Your task to perform on an android device: Clear the cart on ebay. Search for acer nitro on ebay, select the first entry, and add it to the cart. Image 0: 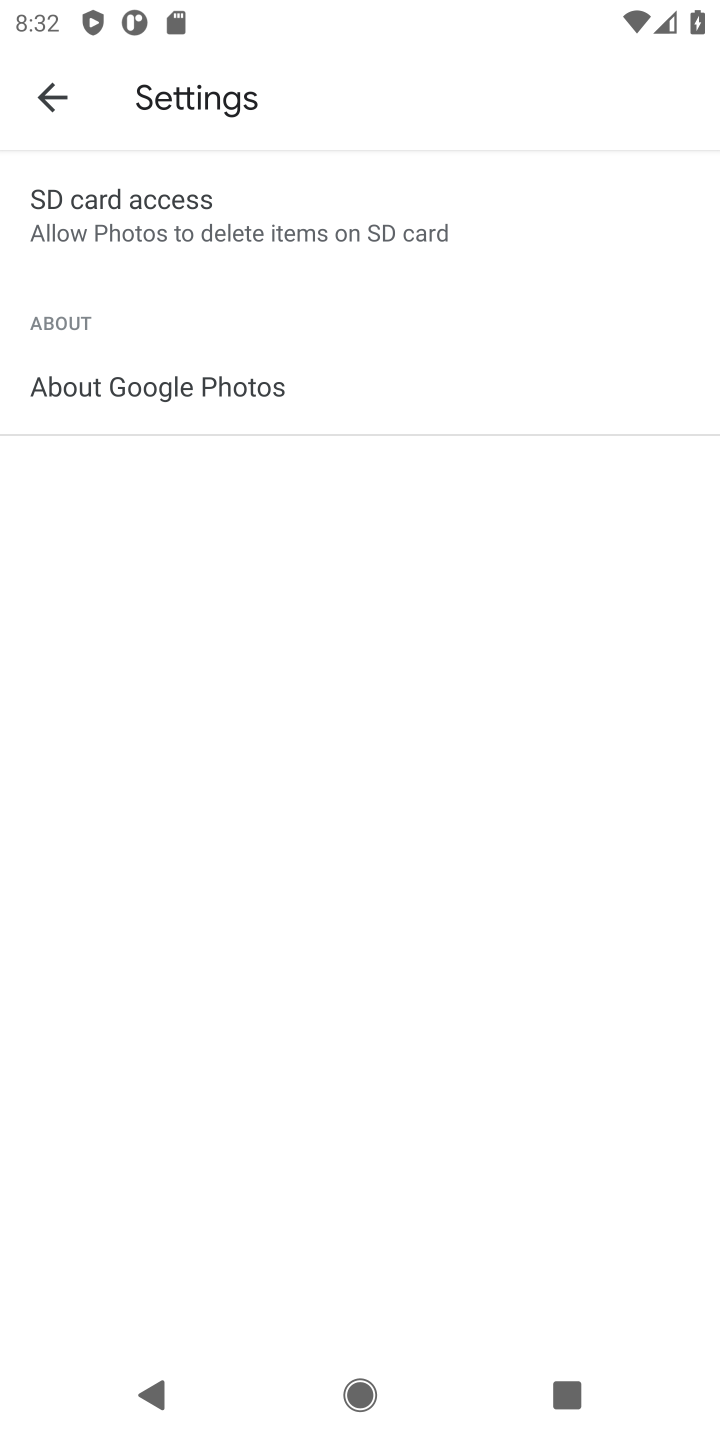
Step 0: press home button
Your task to perform on an android device: Clear the cart on ebay. Search for acer nitro on ebay, select the first entry, and add it to the cart. Image 1: 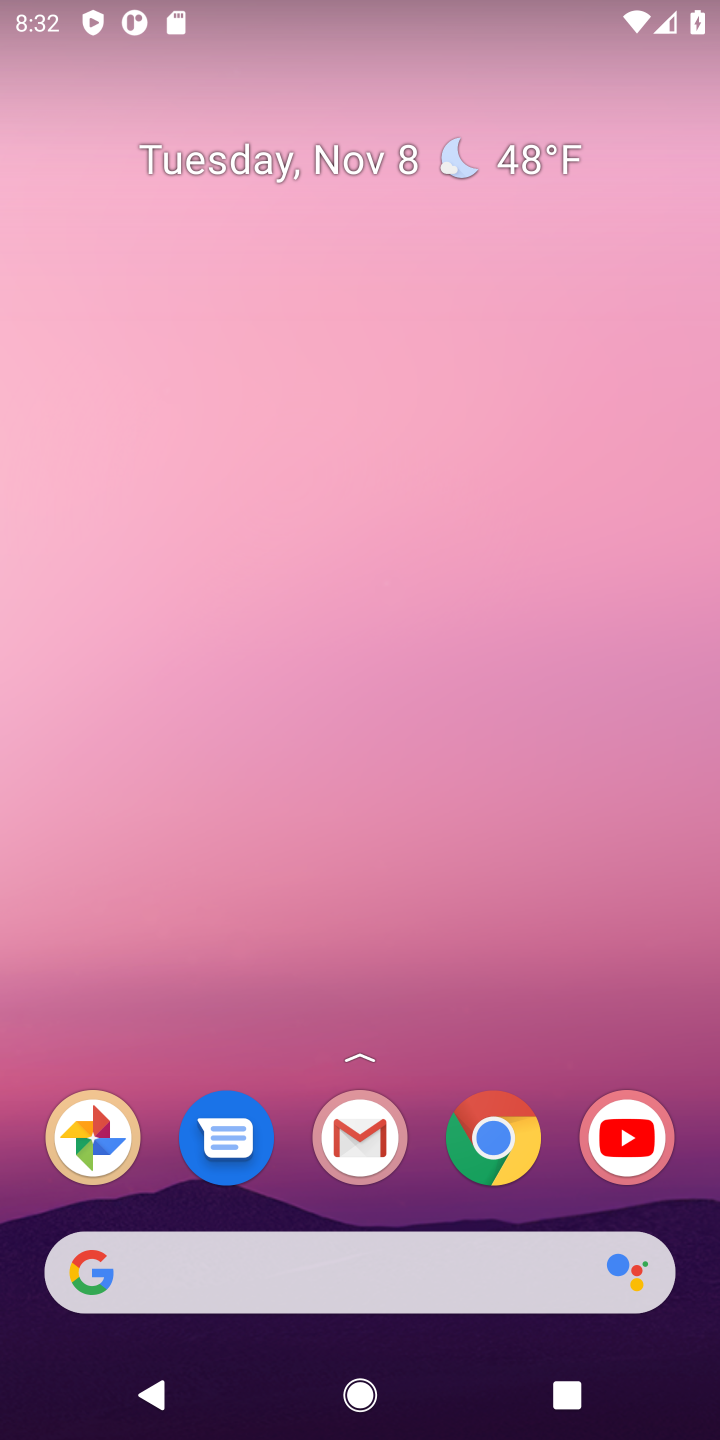
Step 1: click (505, 1149)
Your task to perform on an android device: Clear the cart on ebay. Search for acer nitro on ebay, select the first entry, and add it to the cart. Image 2: 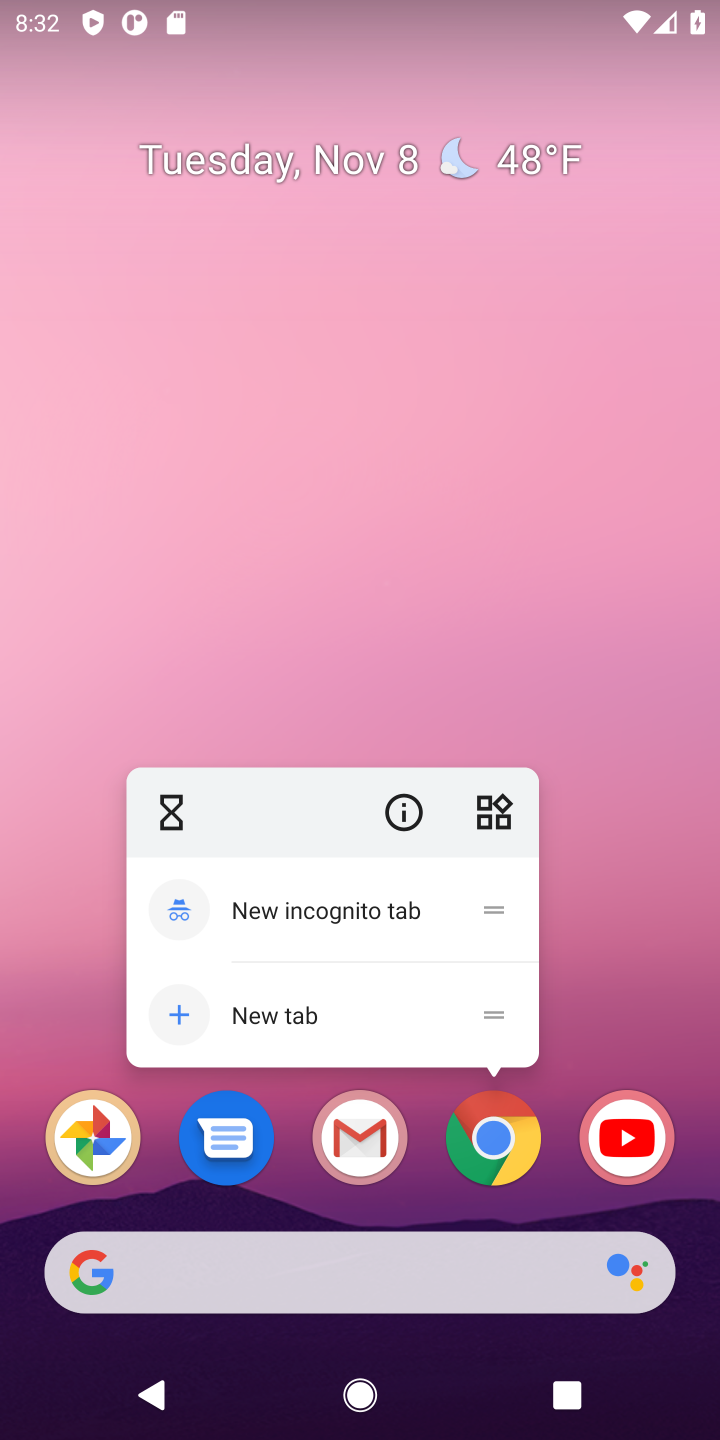
Step 2: click (498, 1149)
Your task to perform on an android device: Clear the cart on ebay. Search for acer nitro on ebay, select the first entry, and add it to the cart. Image 3: 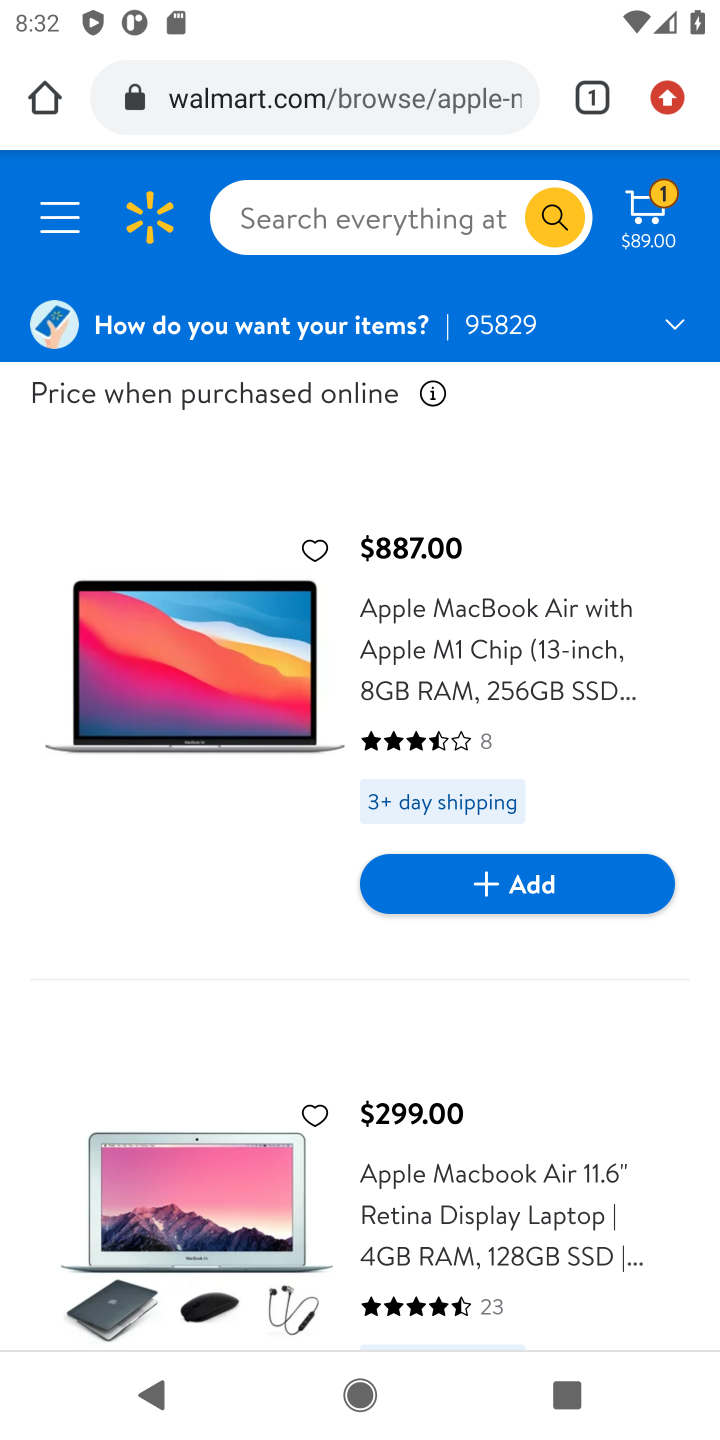
Step 3: click (417, 83)
Your task to perform on an android device: Clear the cart on ebay. Search for acer nitro on ebay, select the first entry, and add it to the cart. Image 4: 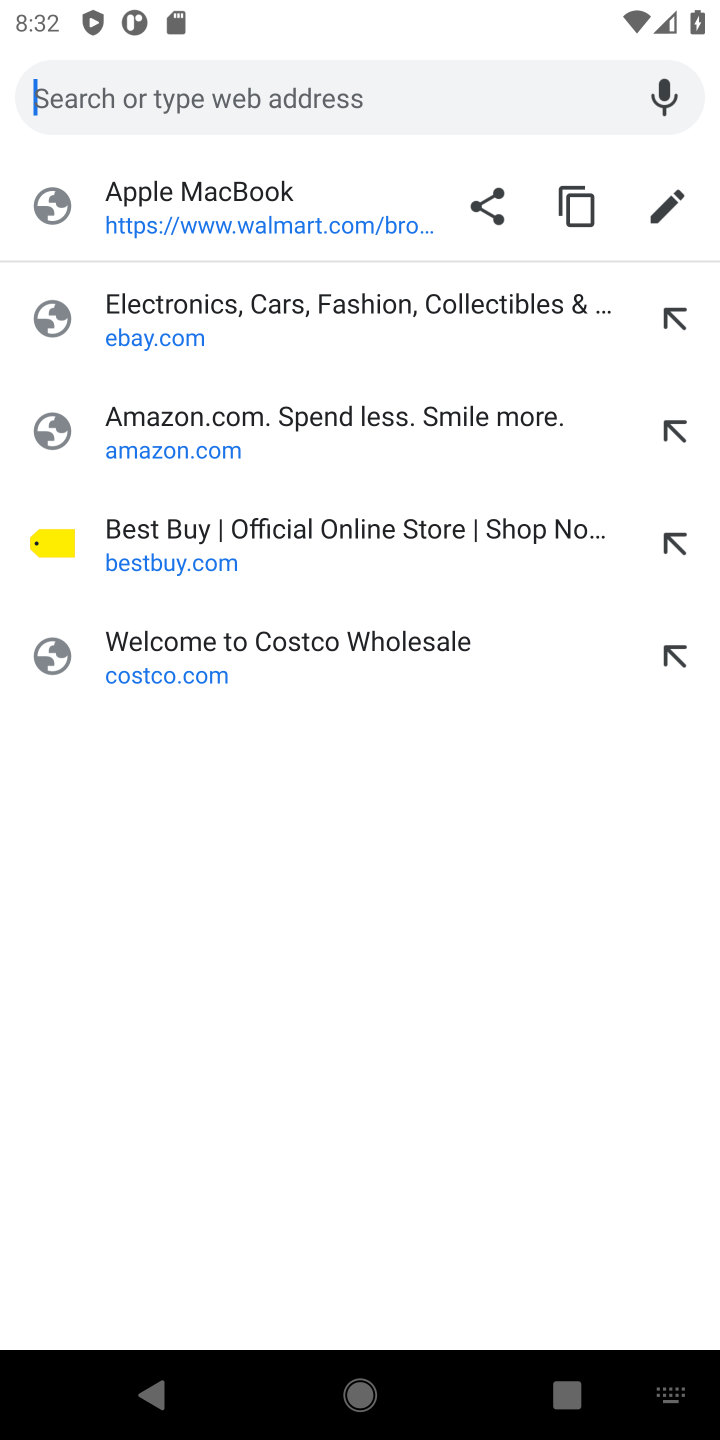
Step 4: click (185, 330)
Your task to perform on an android device: Clear the cart on ebay. Search for acer nitro on ebay, select the first entry, and add it to the cart. Image 5: 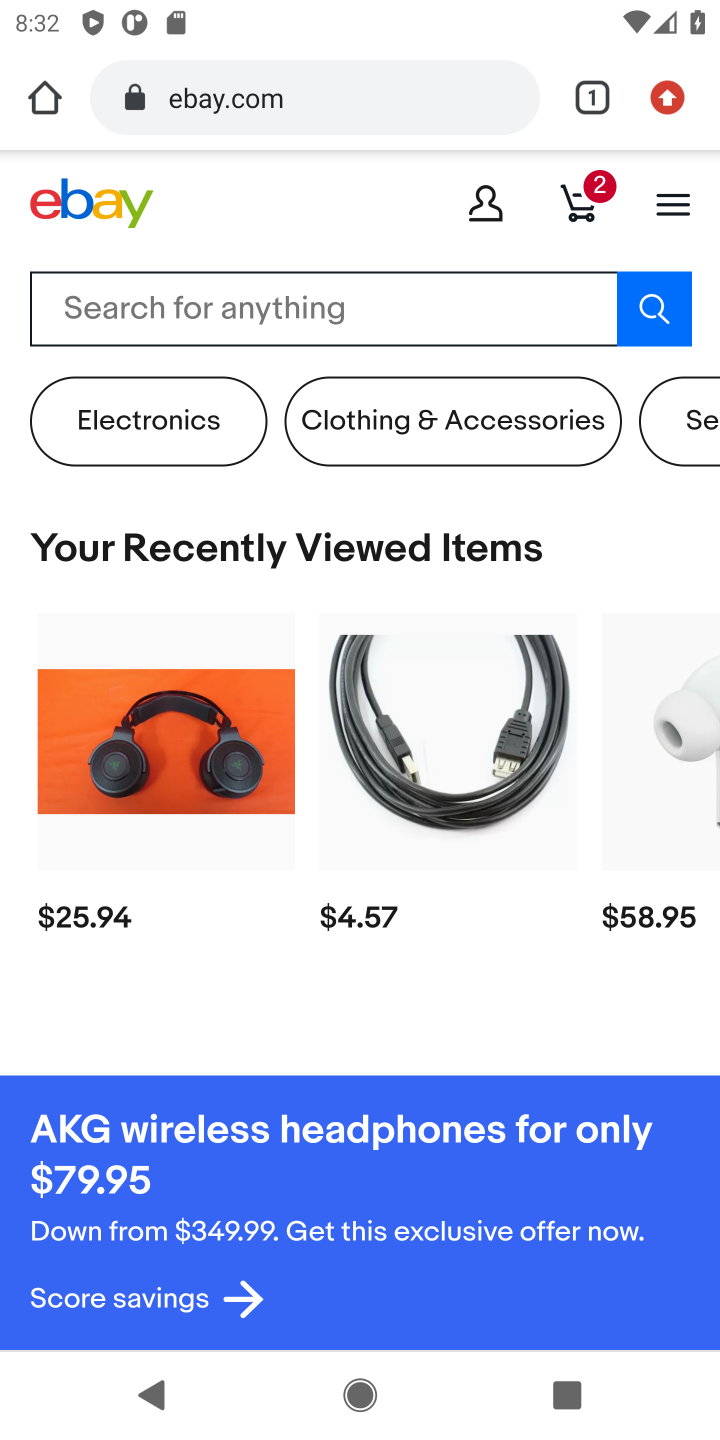
Step 5: click (596, 203)
Your task to perform on an android device: Clear the cart on ebay. Search for acer nitro on ebay, select the first entry, and add it to the cart. Image 6: 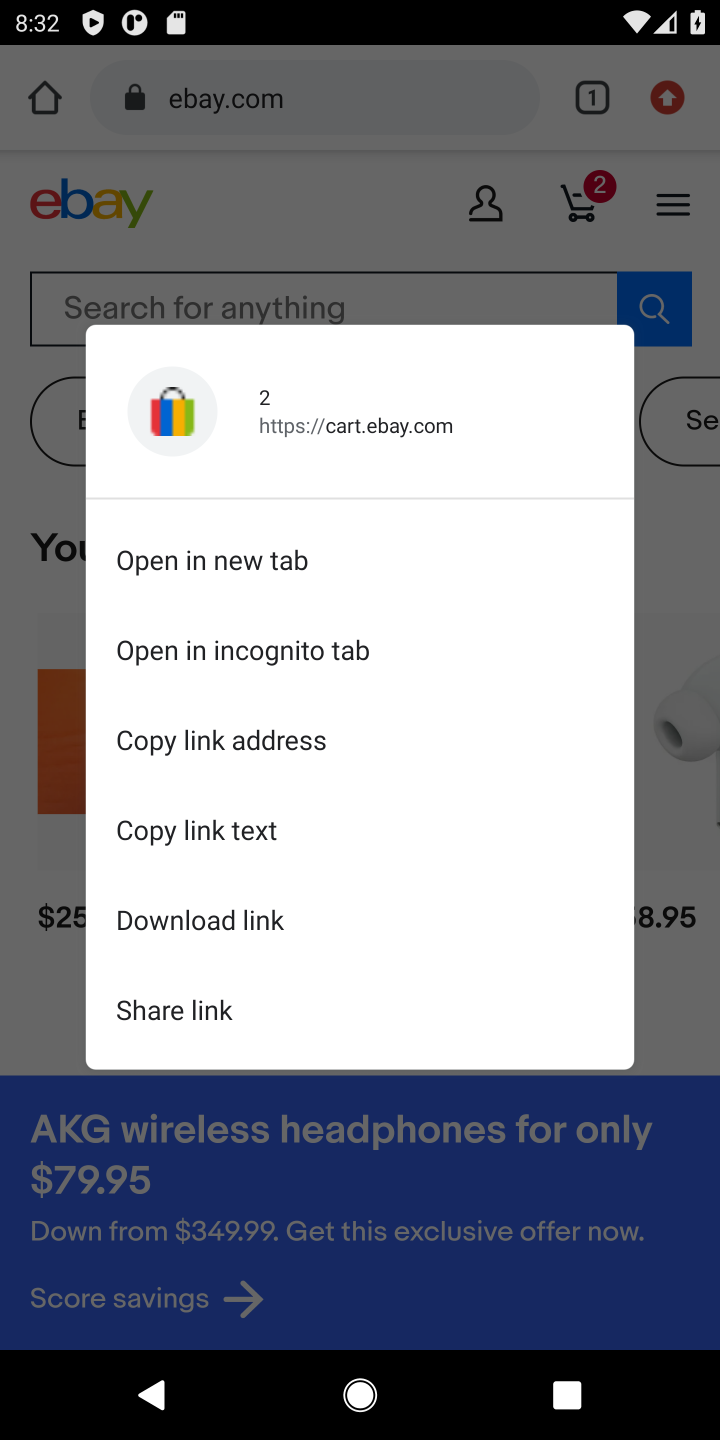
Step 6: click (596, 189)
Your task to perform on an android device: Clear the cart on ebay. Search for acer nitro on ebay, select the first entry, and add it to the cart. Image 7: 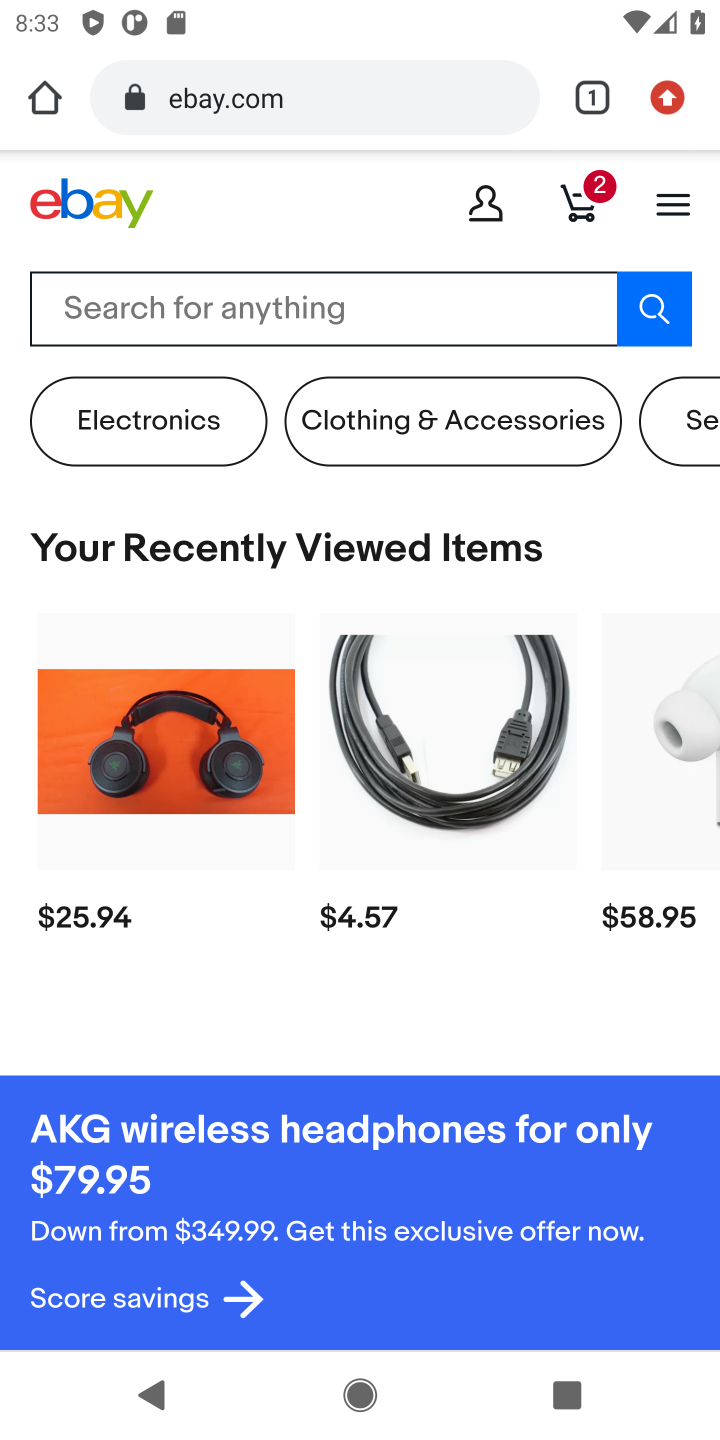
Step 7: click (589, 195)
Your task to perform on an android device: Clear the cart on ebay. Search for acer nitro on ebay, select the first entry, and add it to the cart. Image 8: 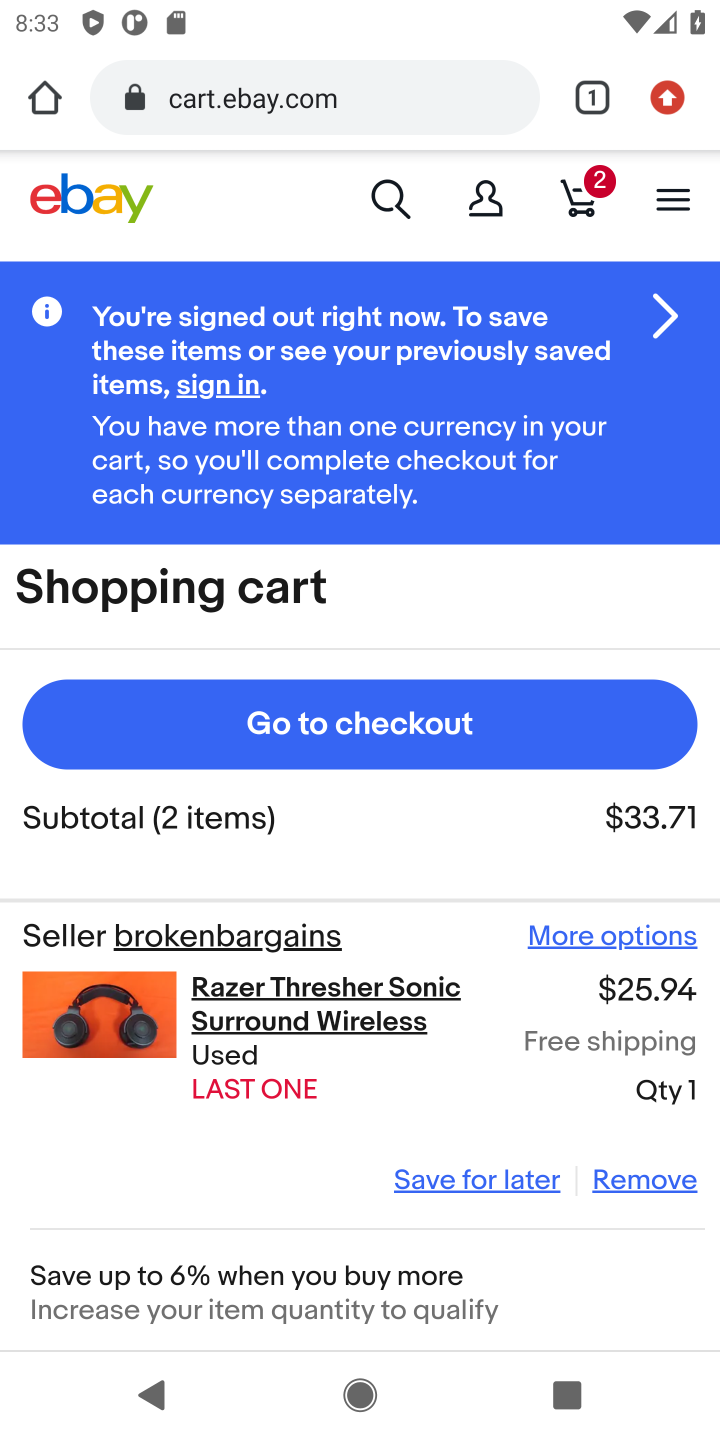
Step 8: click (672, 1179)
Your task to perform on an android device: Clear the cart on ebay. Search for acer nitro on ebay, select the first entry, and add it to the cart. Image 9: 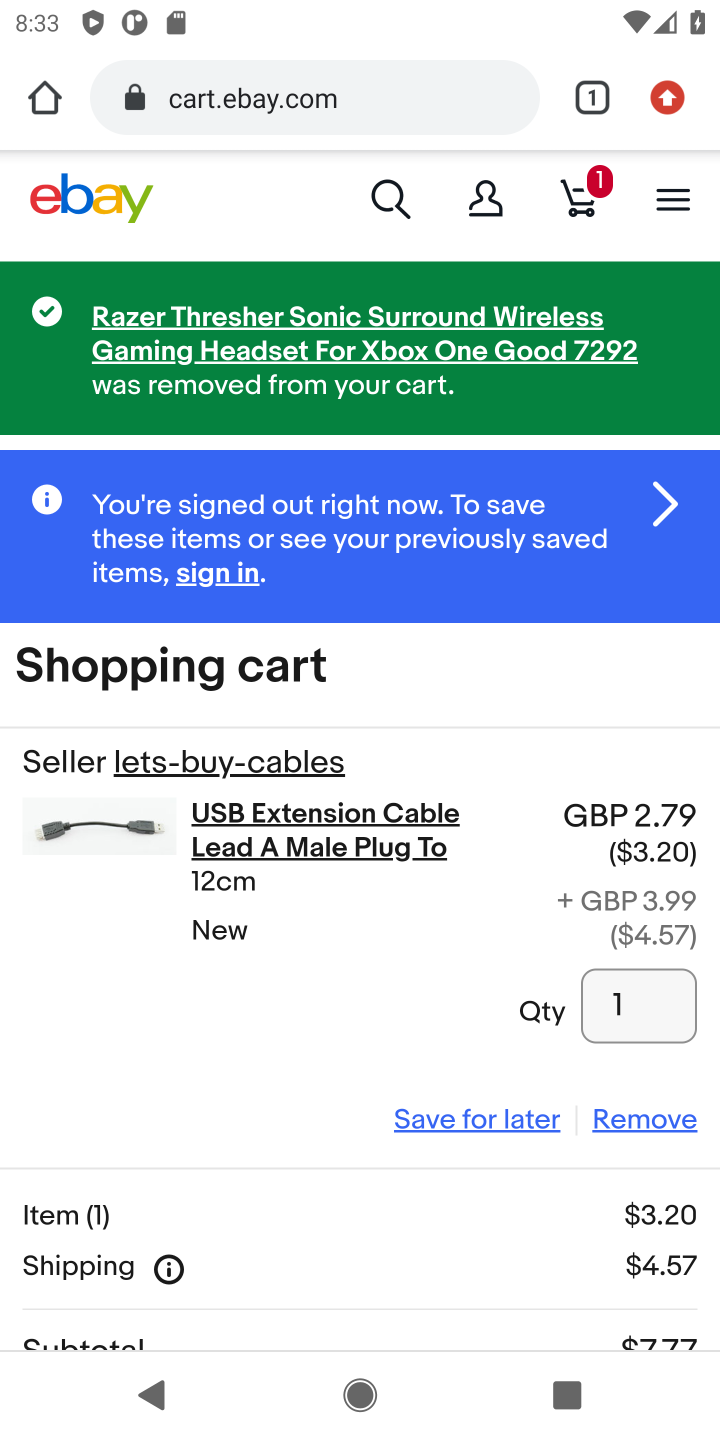
Step 9: click (638, 1109)
Your task to perform on an android device: Clear the cart on ebay. Search for acer nitro on ebay, select the first entry, and add it to the cart. Image 10: 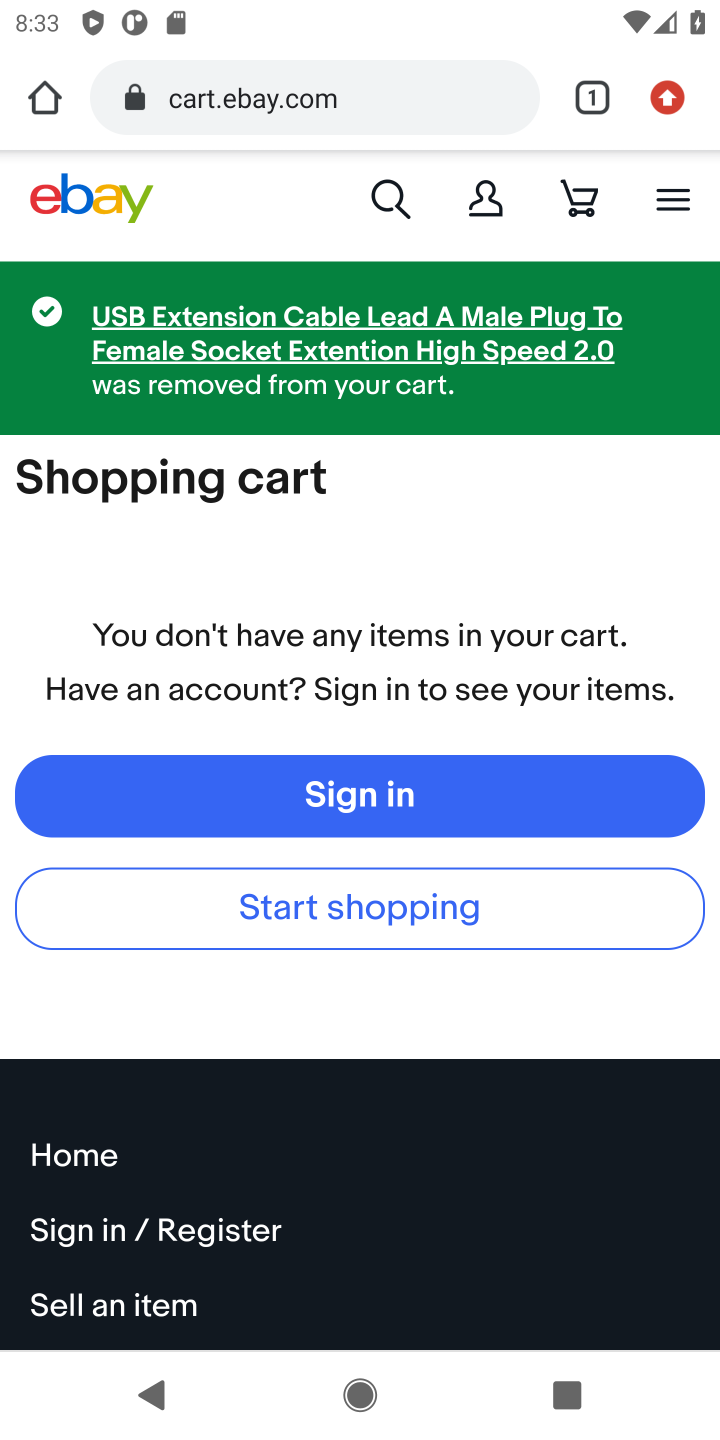
Step 10: click (389, 186)
Your task to perform on an android device: Clear the cart on ebay. Search for acer nitro on ebay, select the first entry, and add it to the cart. Image 11: 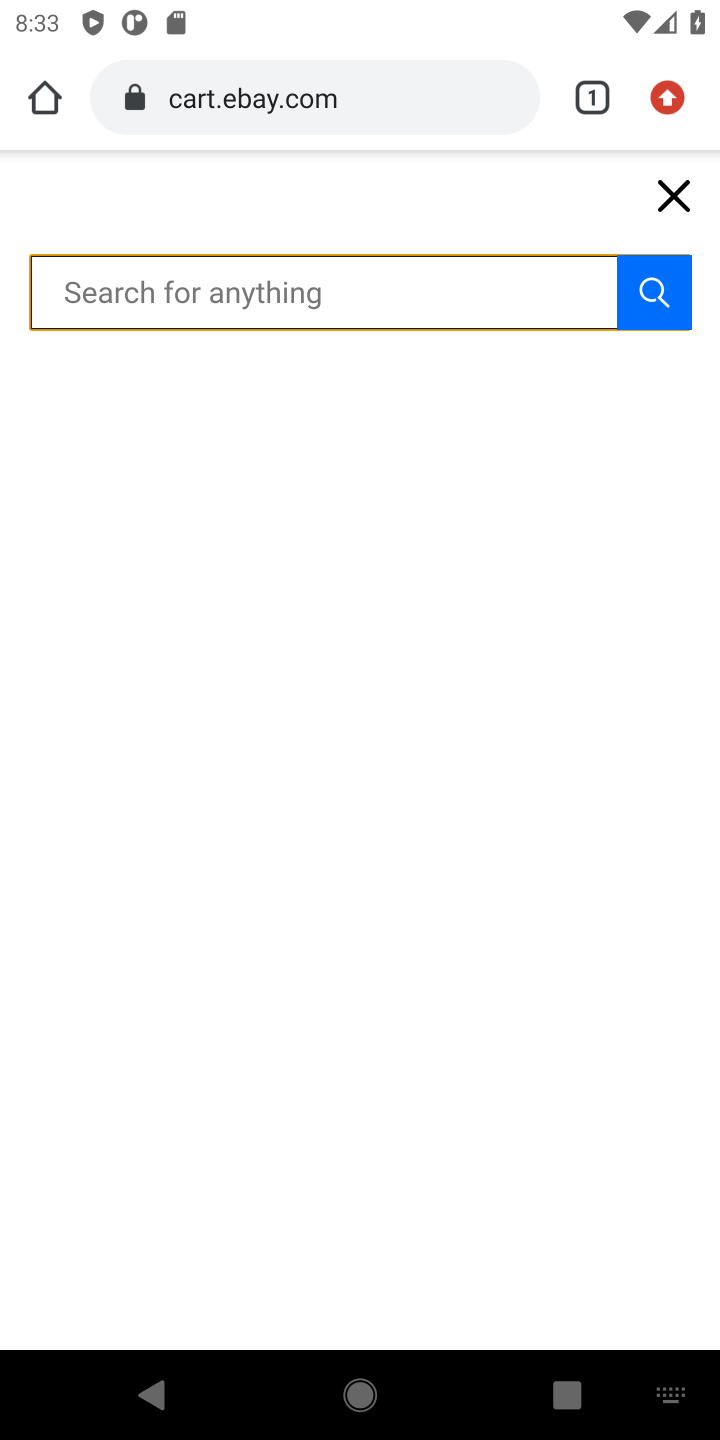
Step 11: click (165, 288)
Your task to perform on an android device: Clear the cart on ebay. Search for acer nitro on ebay, select the first entry, and add it to the cart. Image 12: 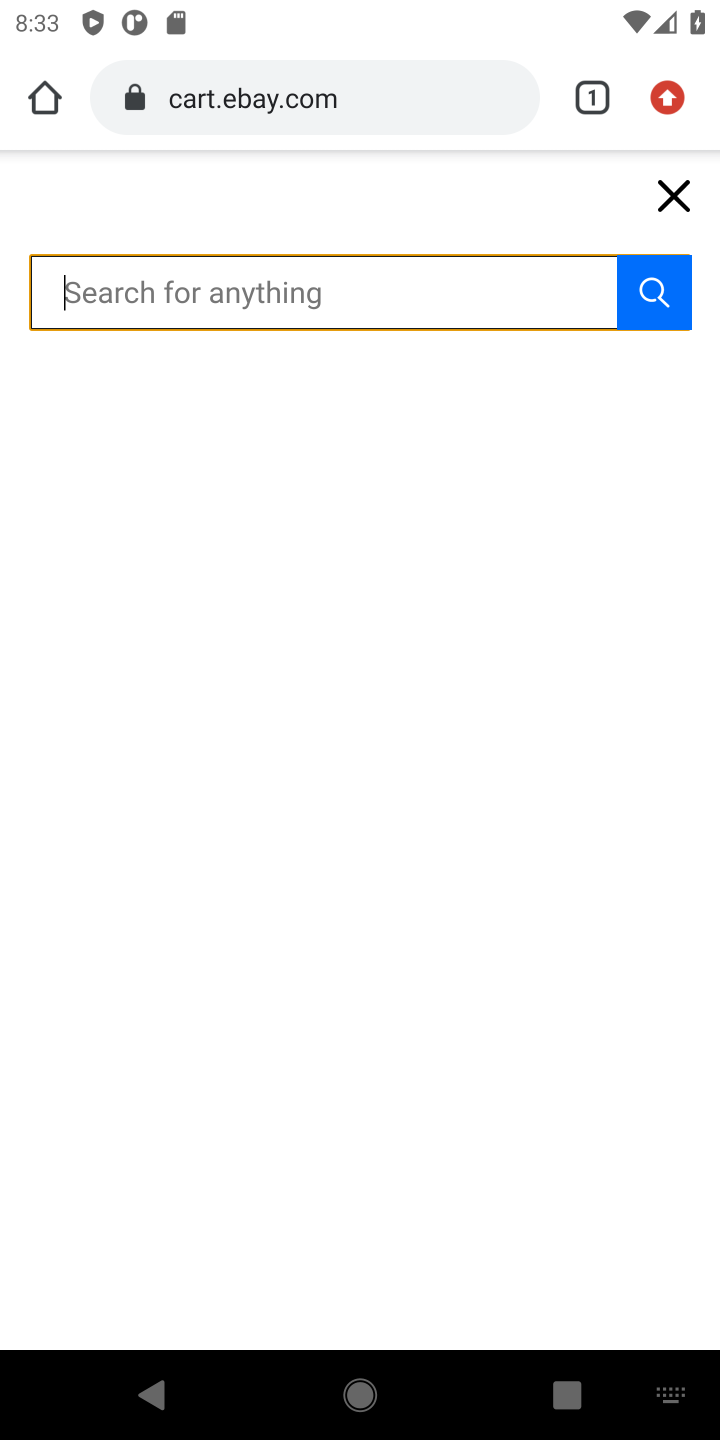
Step 12: type "acer nitro"
Your task to perform on an android device: Clear the cart on ebay. Search for acer nitro on ebay, select the first entry, and add it to the cart. Image 13: 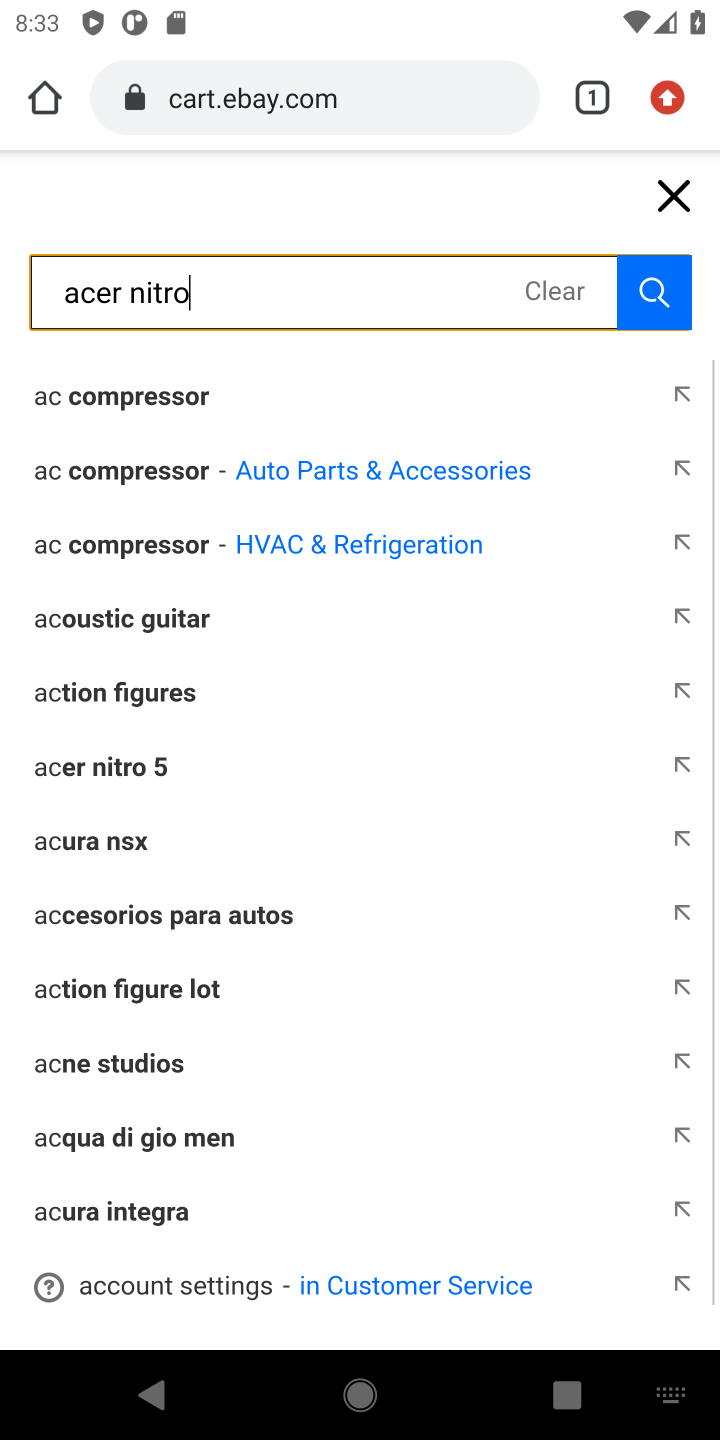
Step 13: press enter
Your task to perform on an android device: Clear the cart on ebay. Search for acer nitro on ebay, select the first entry, and add it to the cart. Image 14: 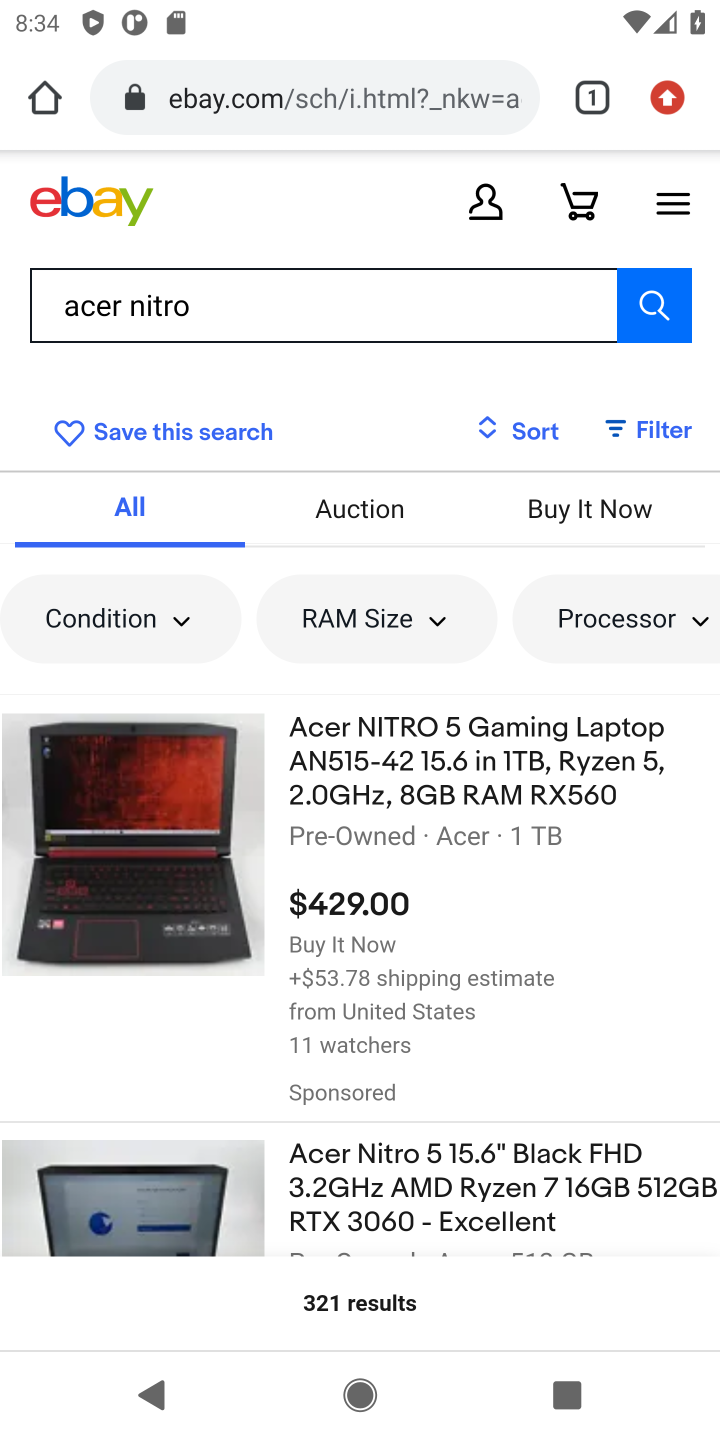
Step 14: click (464, 766)
Your task to perform on an android device: Clear the cart on ebay. Search for acer nitro on ebay, select the first entry, and add it to the cart. Image 15: 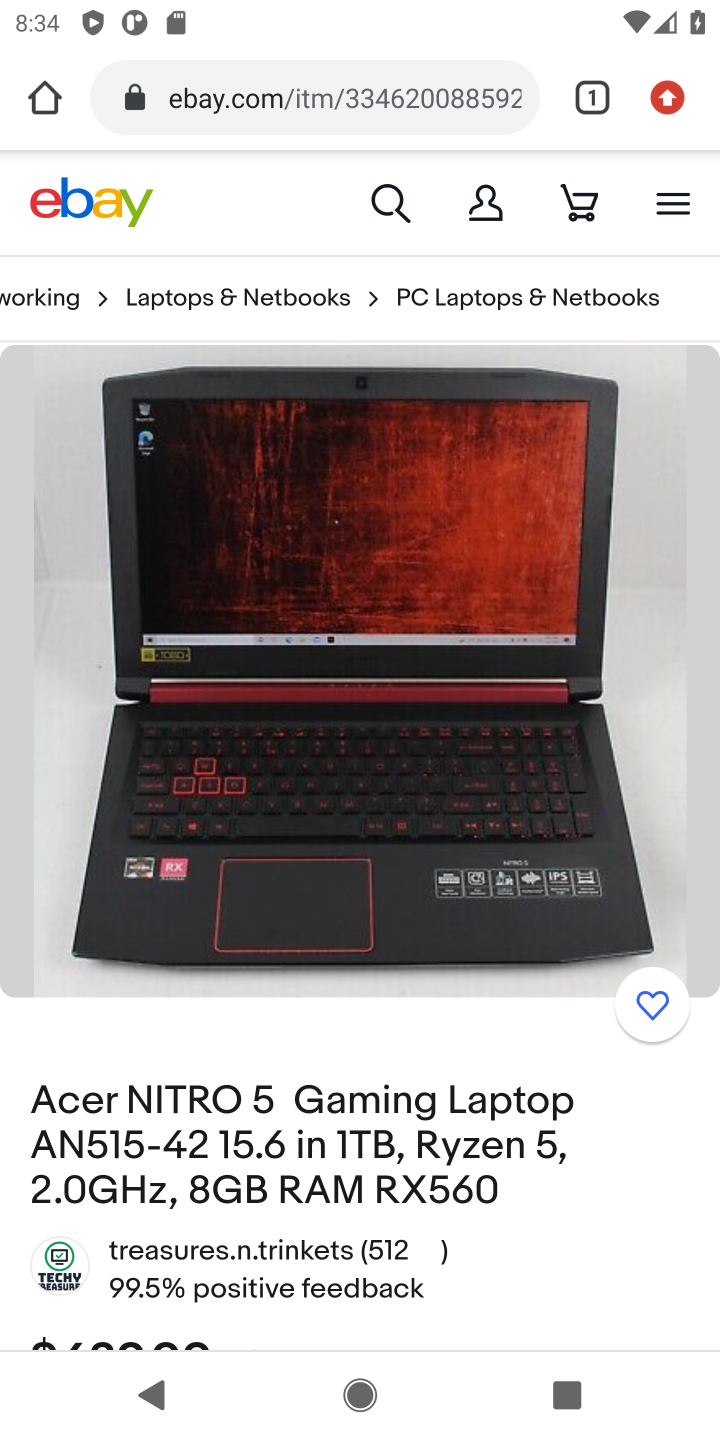
Step 15: drag from (417, 1172) to (686, 244)
Your task to perform on an android device: Clear the cart on ebay. Search for acer nitro on ebay, select the first entry, and add it to the cart. Image 16: 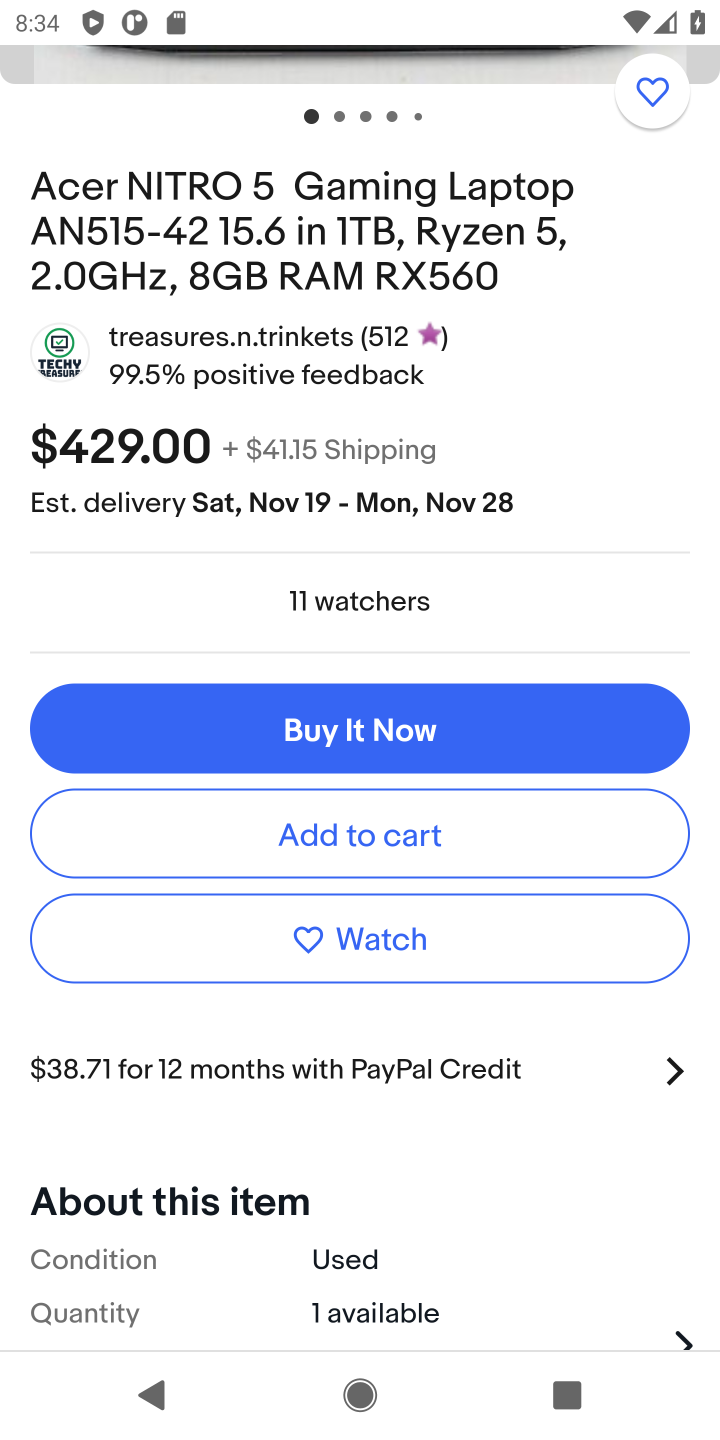
Step 16: click (406, 829)
Your task to perform on an android device: Clear the cart on ebay. Search for acer nitro on ebay, select the first entry, and add it to the cart. Image 17: 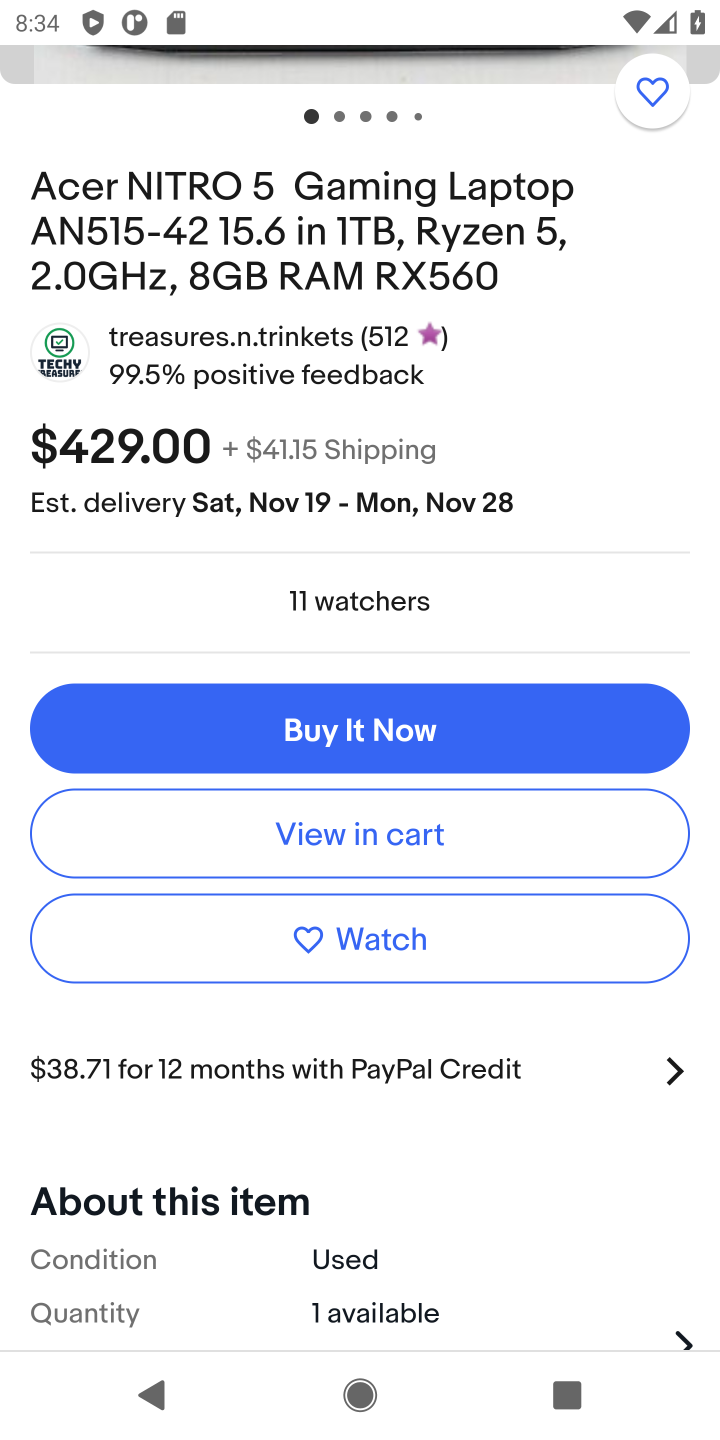
Step 17: click (406, 829)
Your task to perform on an android device: Clear the cart on ebay. Search for acer nitro on ebay, select the first entry, and add it to the cart. Image 18: 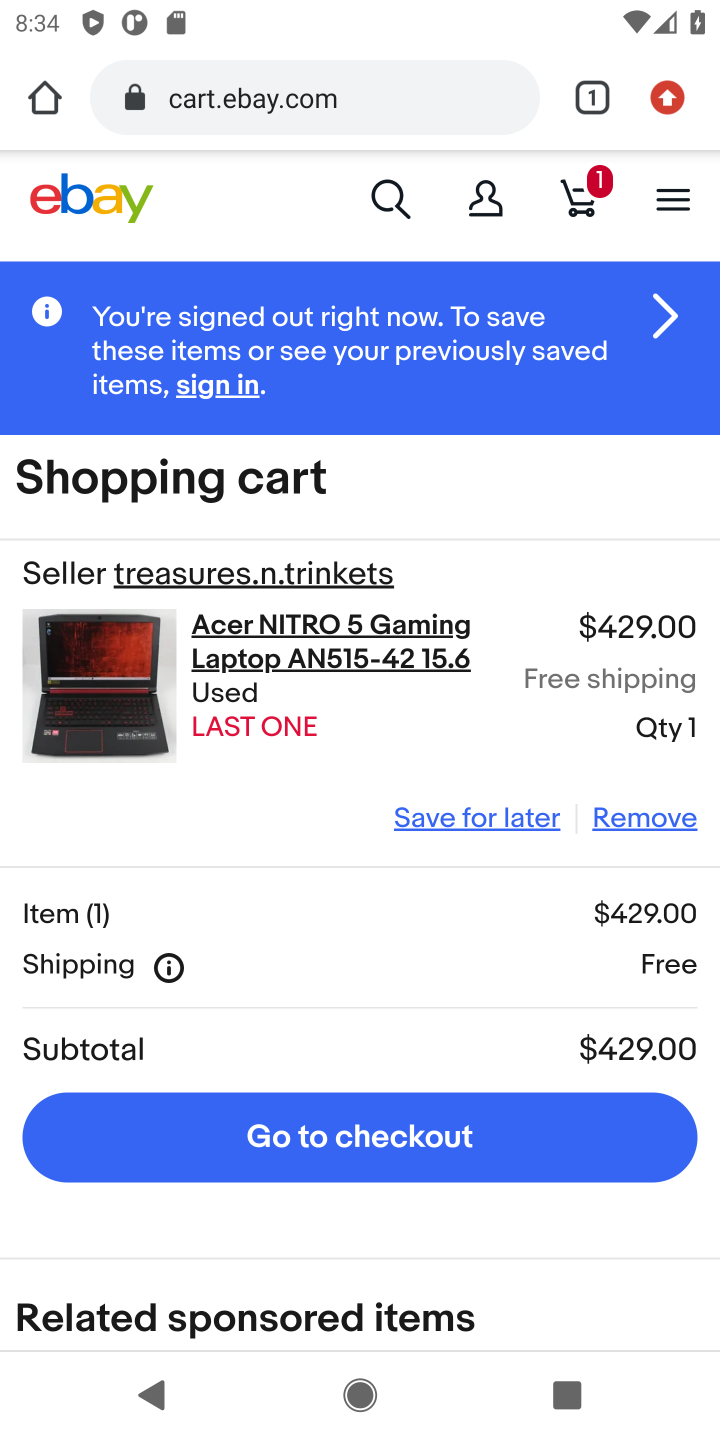
Step 18: task complete